Your task to perform on an android device: Open internet settings Image 0: 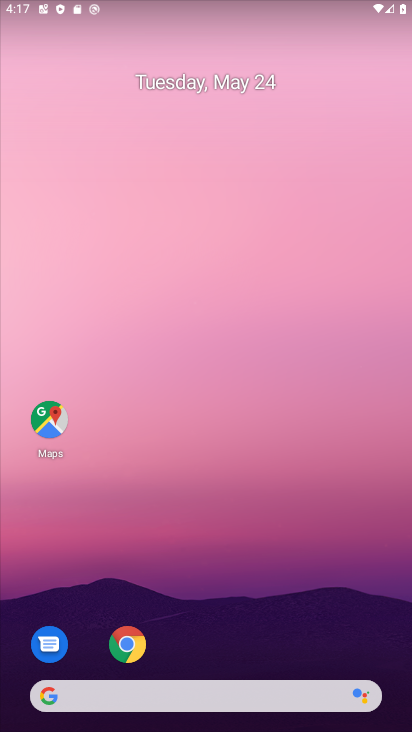
Step 0: drag from (306, 694) to (223, 55)
Your task to perform on an android device: Open internet settings Image 1: 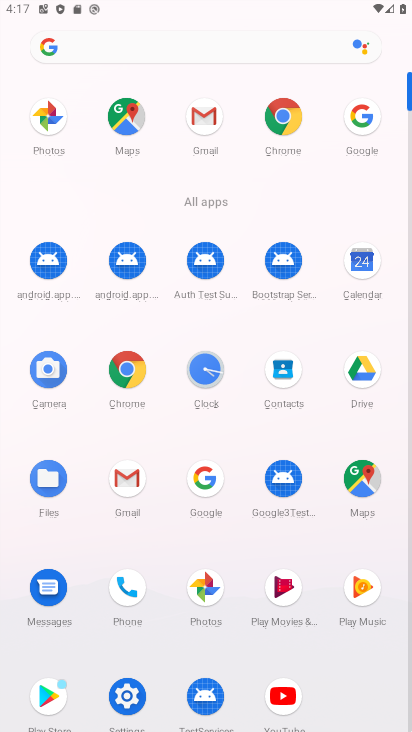
Step 1: drag from (173, 551) to (171, 285)
Your task to perform on an android device: Open internet settings Image 2: 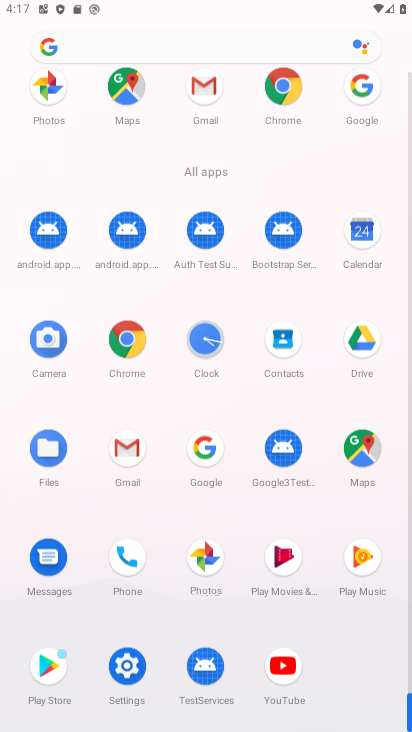
Step 2: drag from (149, 403) to (158, 141)
Your task to perform on an android device: Open internet settings Image 3: 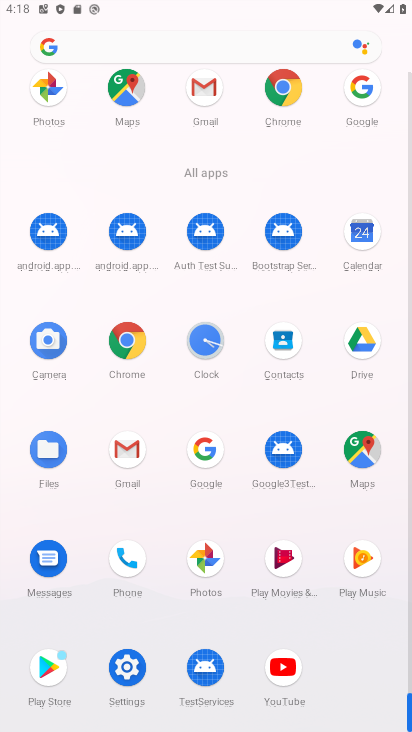
Step 3: click (131, 671)
Your task to perform on an android device: Open internet settings Image 4: 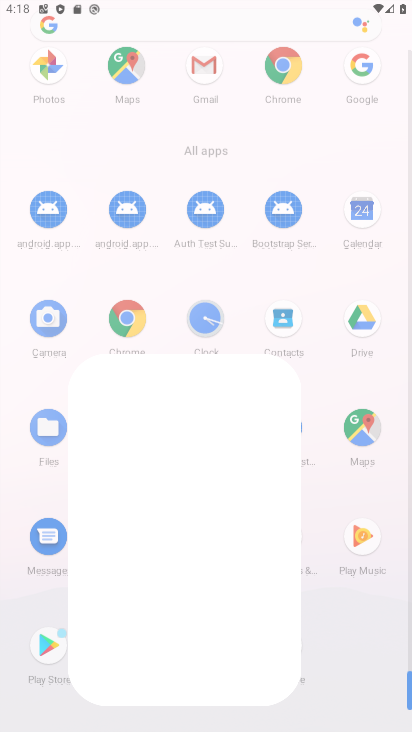
Step 4: click (136, 676)
Your task to perform on an android device: Open internet settings Image 5: 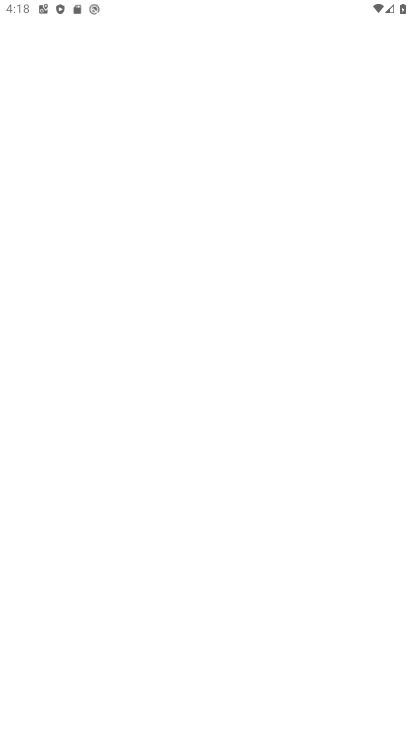
Step 5: click (137, 677)
Your task to perform on an android device: Open internet settings Image 6: 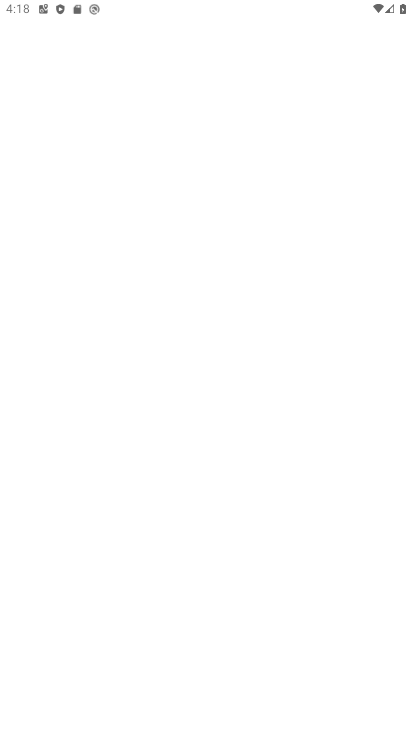
Step 6: click (137, 677)
Your task to perform on an android device: Open internet settings Image 7: 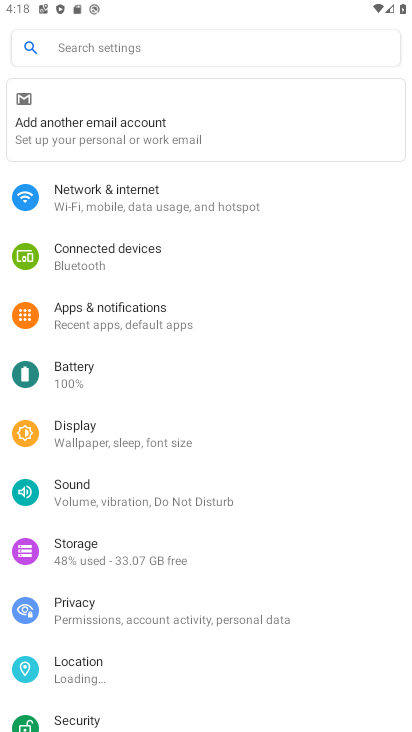
Step 7: click (101, 105)
Your task to perform on an android device: Open internet settings Image 8: 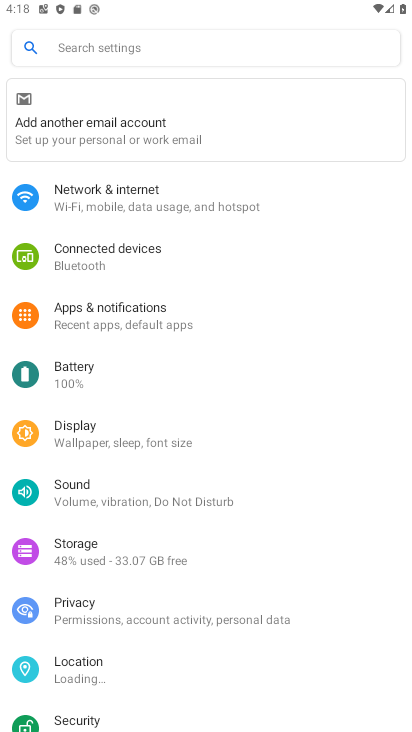
Step 8: click (102, 104)
Your task to perform on an android device: Open internet settings Image 9: 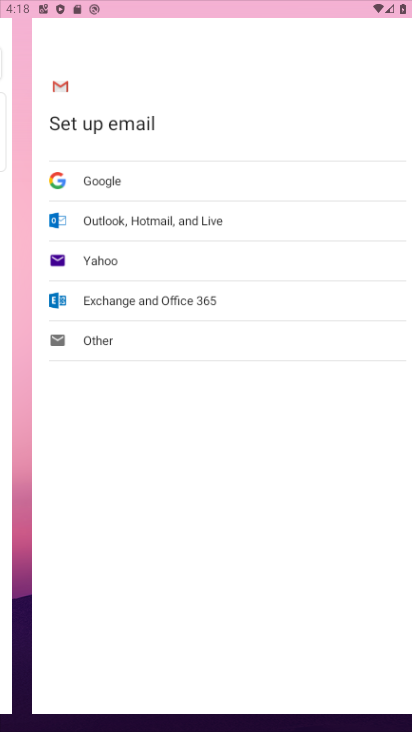
Step 9: click (104, 106)
Your task to perform on an android device: Open internet settings Image 10: 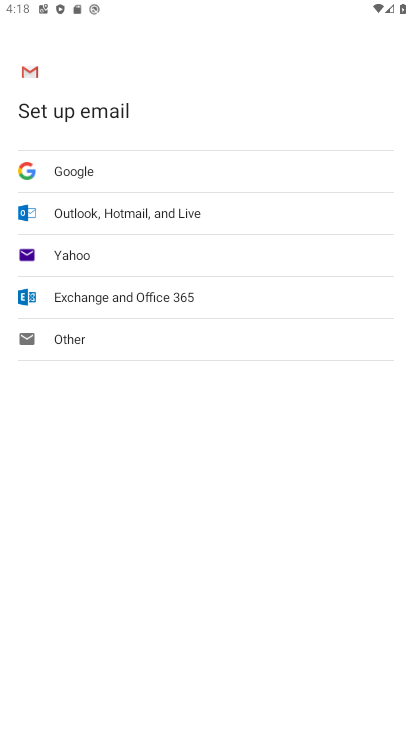
Step 10: click (104, 106)
Your task to perform on an android device: Open internet settings Image 11: 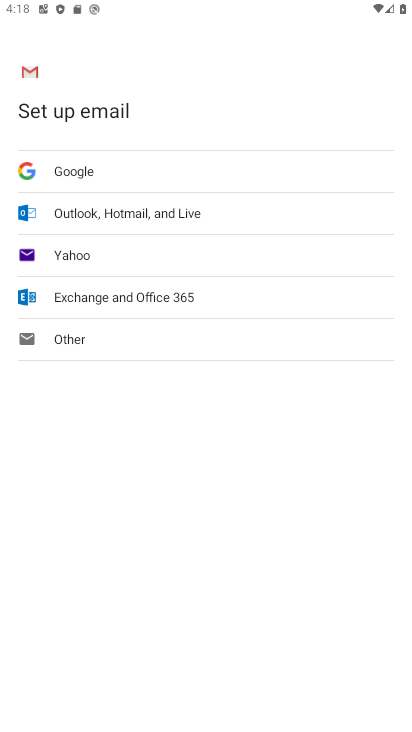
Step 11: press back button
Your task to perform on an android device: Open internet settings Image 12: 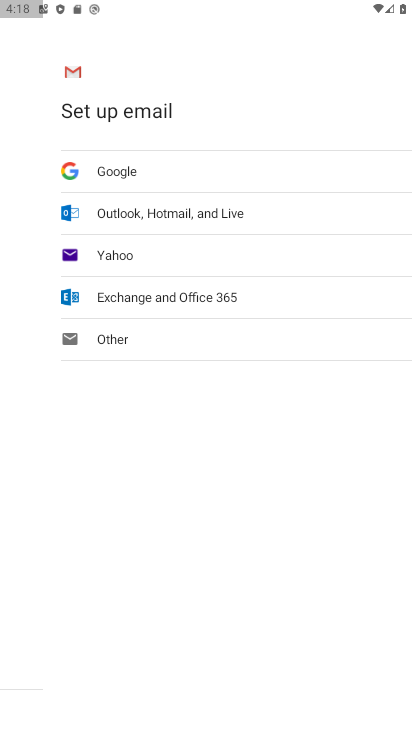
Step 12: press back button
Your task to perform on an android device: Open internet settings Image 13: 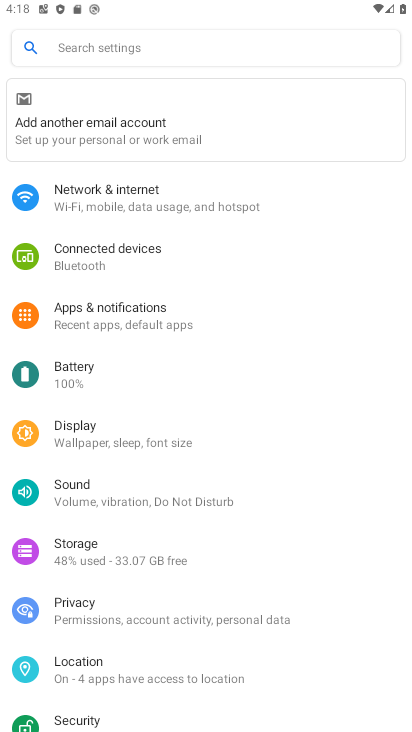
Step 13: press back button
Your task to perform on an android device: Open internet settings Image 14: 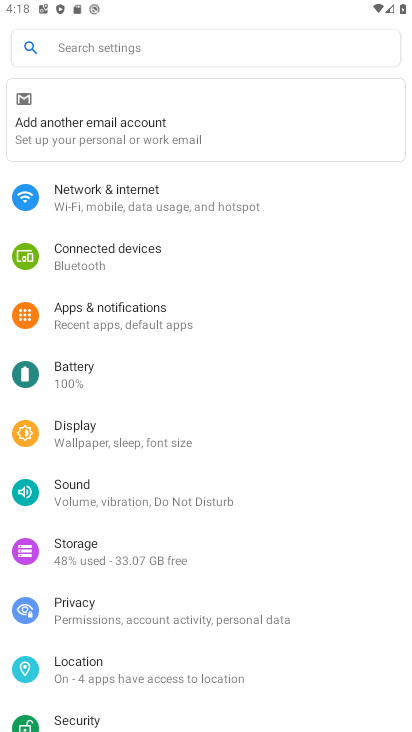
Step 14: press back button
Your task to perform on an android device: Open internet settings Image 15: 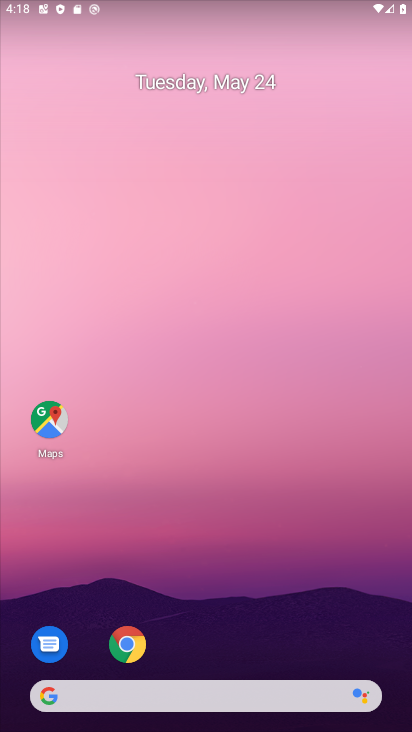
Step 15: press home button
Your task to perform on an android device: Open internet settings Image 16: 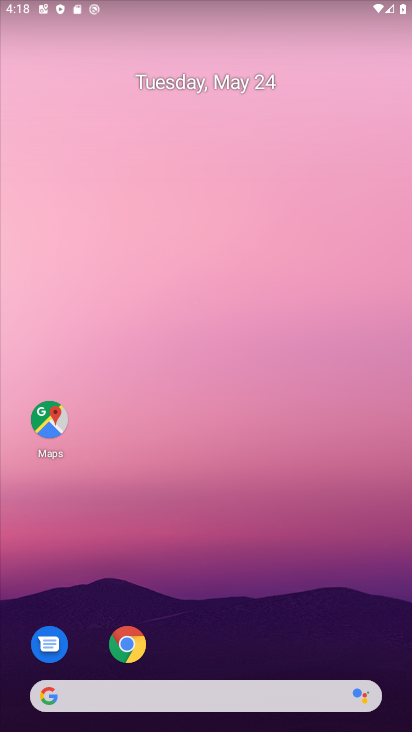
Step 16: drag from (269, 594) to (216, 120)
Your task to perform on an android device: Open internet settings Image 17: 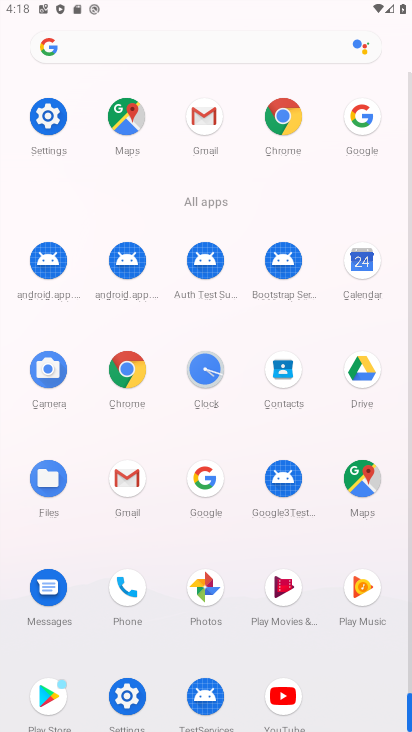
Step 17: click (55, 123)
Your task to perform on an android device: Open internet settings Image 18: 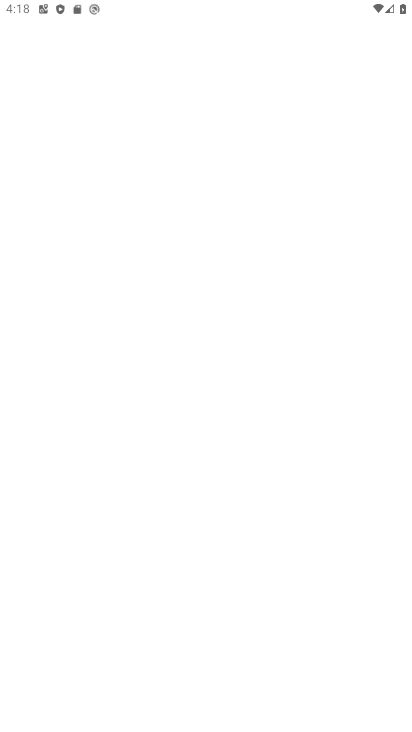
Step 18: click (55, 123)
Your task to perform on an android device: Open internet settings Image 19: 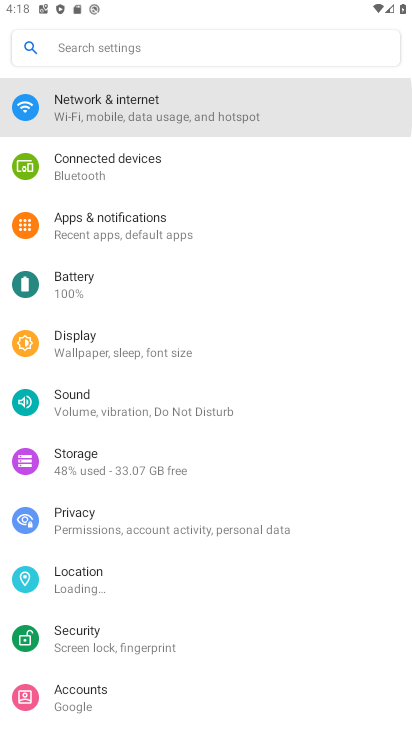
Step 19: click (55, 123)
Your task to perform on an android device: Open internet settings Image 20: 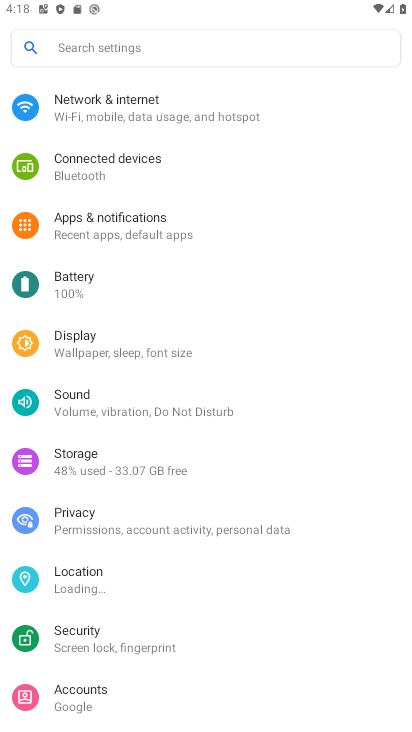
Step 20: click (55, 123)
Your task to perform on an android device: Open internet settings Image 21: 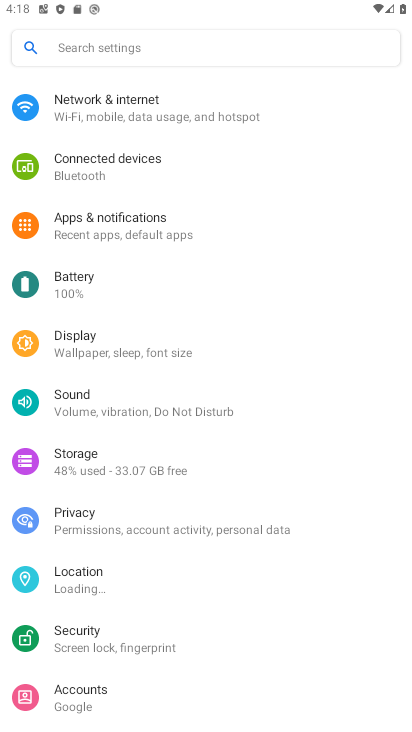
Step 21: click (55, 125)
Your task to perform on an android device: Open internet settings Image 22: 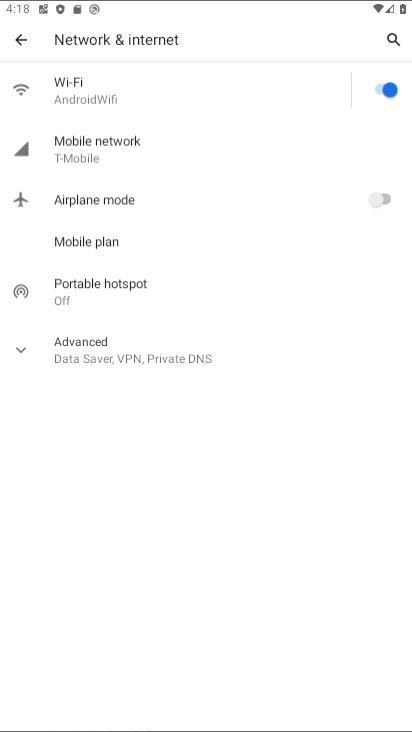
Step 22: click (55, 125)
Your task to perform on an android device: Open internet settings Image 23: 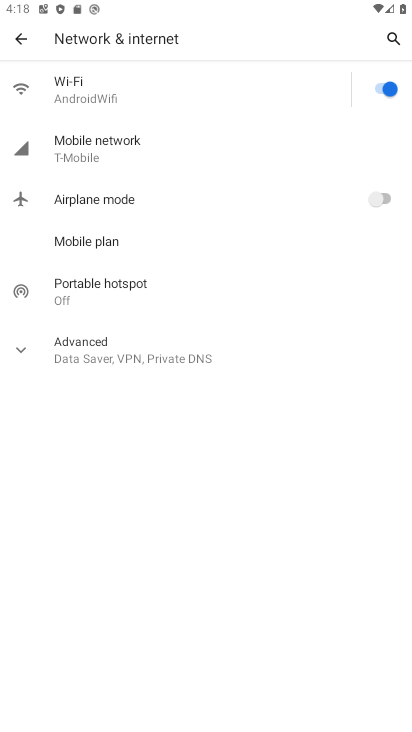
Step 23: click (56, 126)
Your task to perform on an android device: Open internet settings Image 24: 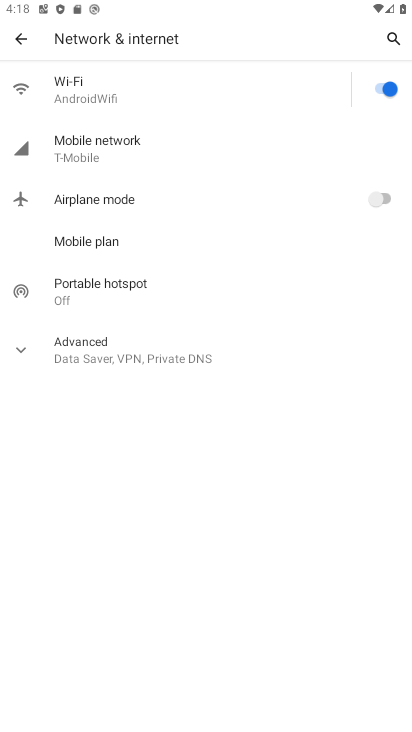
Step 24: click (56, 126)
Your task to perform on an android device: Open internet settings Image 25: 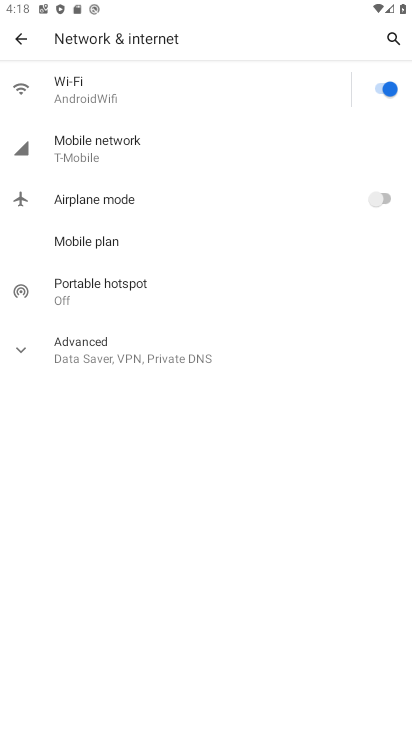
Step 25: click (54, 123)
Your task to perform on an android device: Open internet settings Image 26: 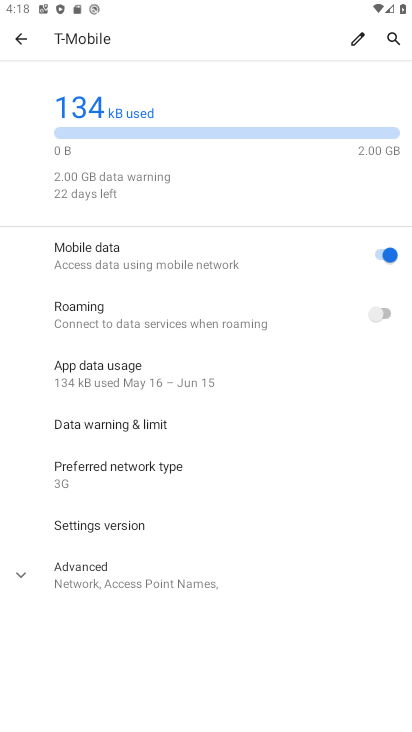
Step 26: click (24, 40)
Your task to perform on an android device: Open internet settings Image 27: 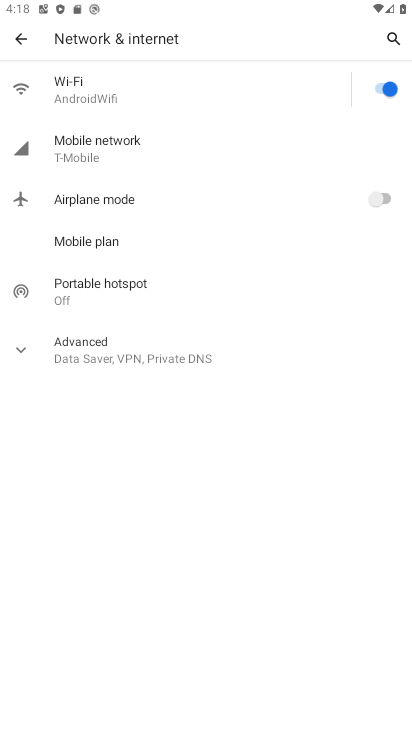
Step 27: click (79, 94)
Your task to perform on an android device: Open internet settings Image 28: 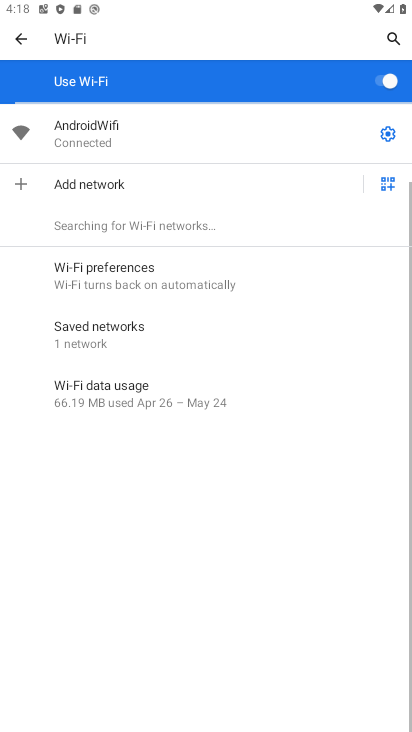
Step 28: task complete